Your task to perform on an android device: Go to sound settings Image 0: 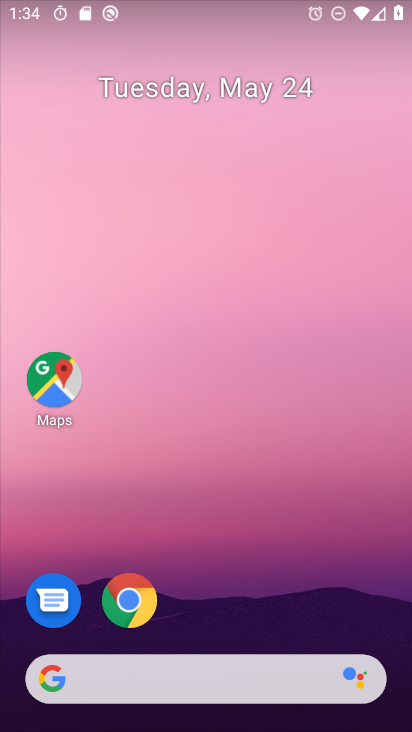
Step 0: drag from (170, 546) to (131, 169)
Your task to perform on an android device: Go to sound settings Image 1: 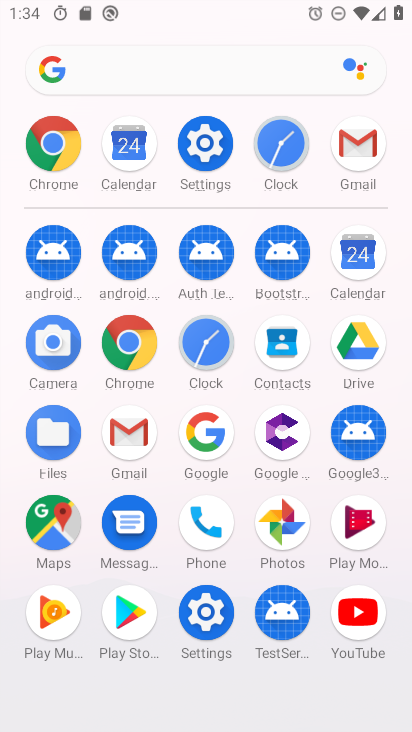
Step 1: click (204, 155)
Your task to perform on an android device: Go to sound settings Image 2: 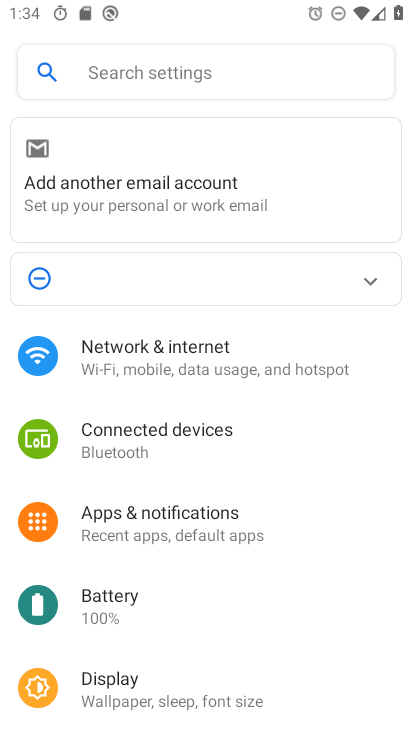
Step 2: drag from (243, 605) to (262, 169)
Your task to perform on an android device: Go to sound settings Image 3: 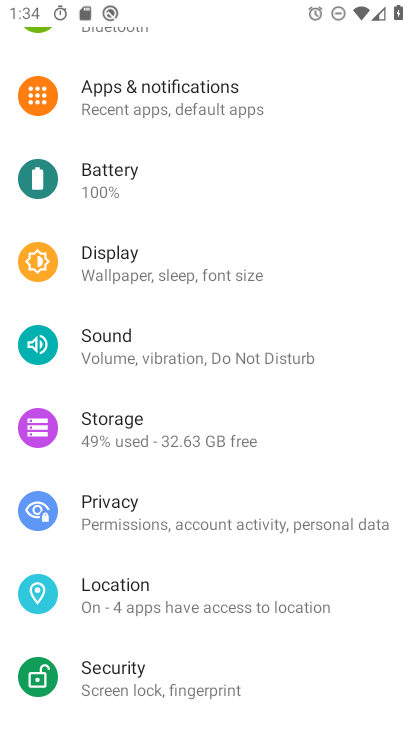
Step 3: click (183, 339)
Your task to perform on an android device: Go to sound settings Image 4: 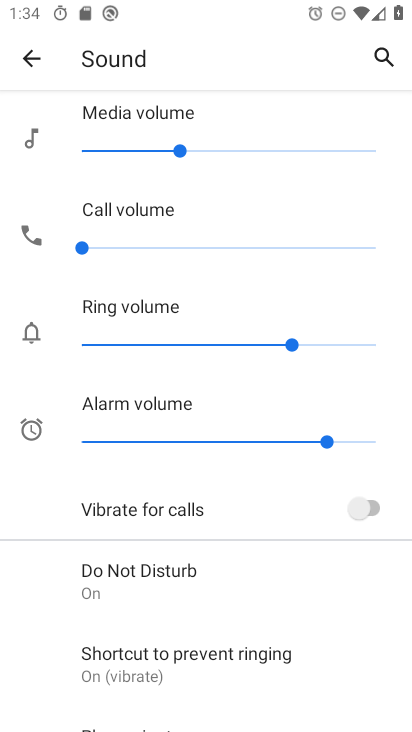
Step 4: task complete